Your task to perform on an android device: visit the assistant section in the google photos Image 0: 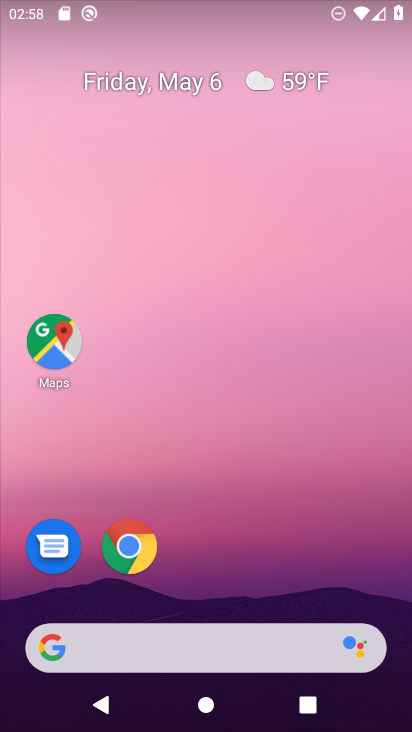
Step 0: drag from (258, 552) to (274, 55)
Your task to perform on an android device: visit the assistant section in the google photos Image 1: 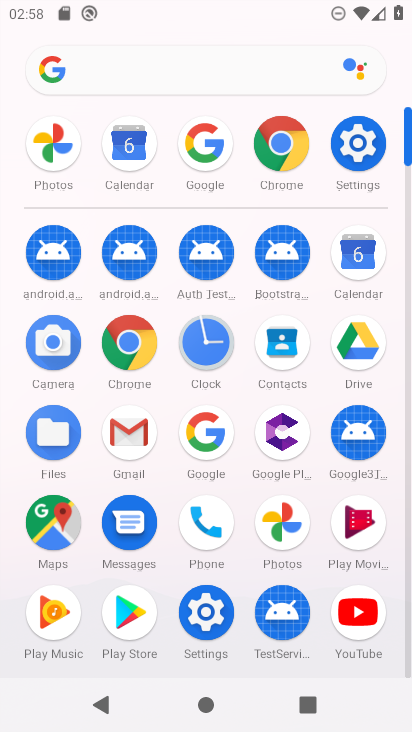
Step 1: click (280, 517)
Your task to perform on an android device: visit the assistant section in the google photos Image 2: 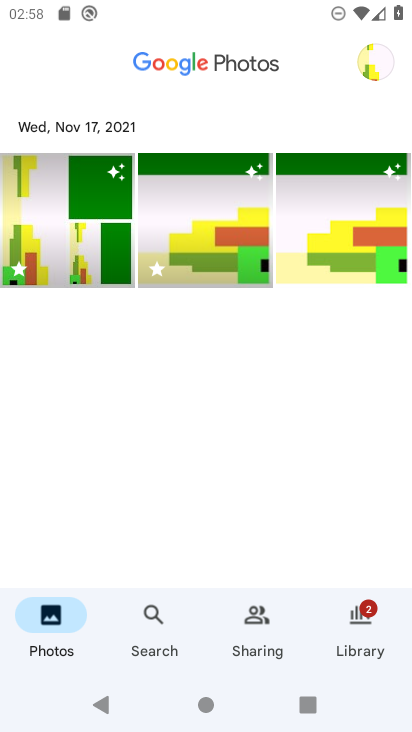
Step 2: click (150, 621)
Your task to perform on an android device: visit the assistant section in the google photos Image 3: 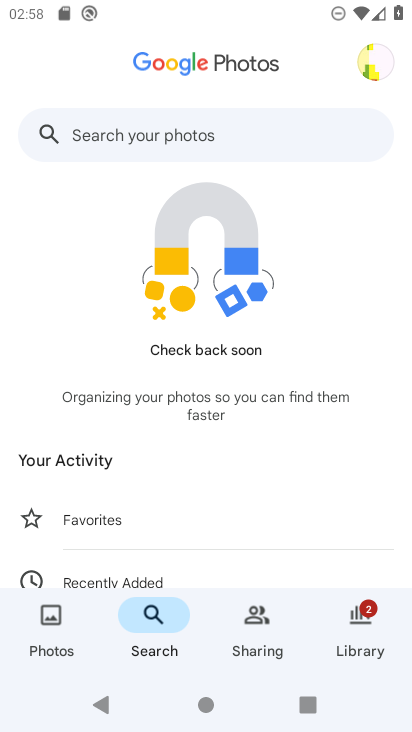
Step 3: drag from (214, 517) to (250, 452)
Your task to perform on an android device: visit the assistant section in the google photos Image 4: 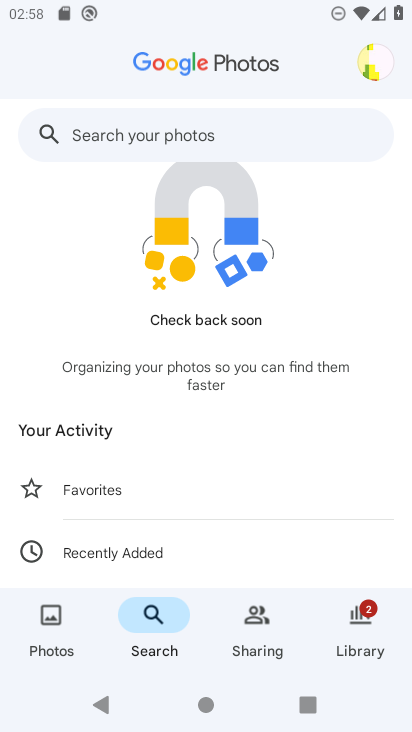
Step 4: click (203, 145)
Your task to perform on an android device: visit the assistant section in the google photos Image 5: 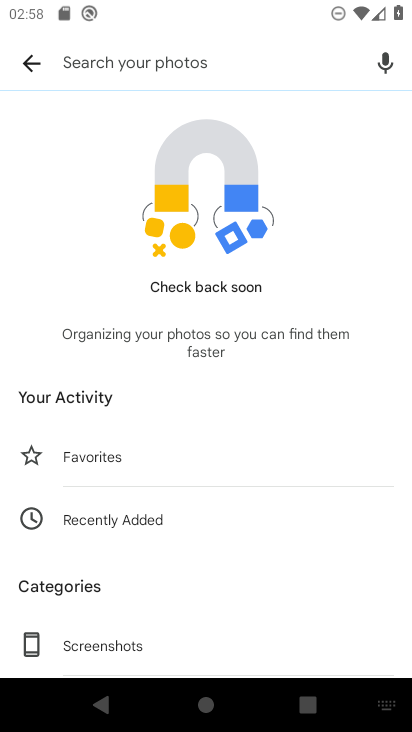
Step 5: type "assistant"
Your task to perform on an android device: visit the assistant section in the google photos Image 6: 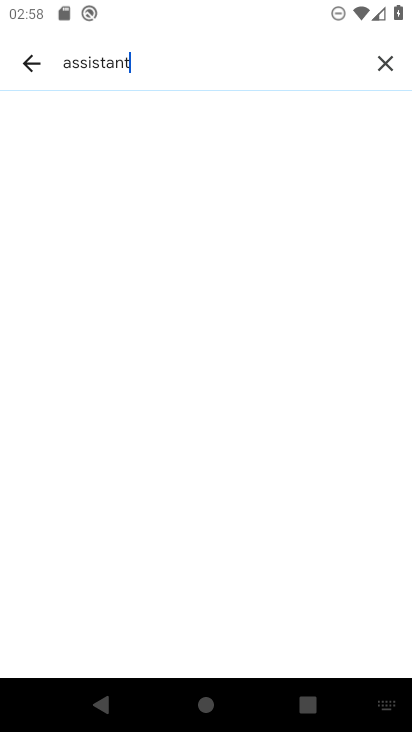
Step 6: task complete